Your task to perform on an android device: Clear all items from cart on costco.com. Add dell xps to the cart on costco.com, then select checkout. Image 0: 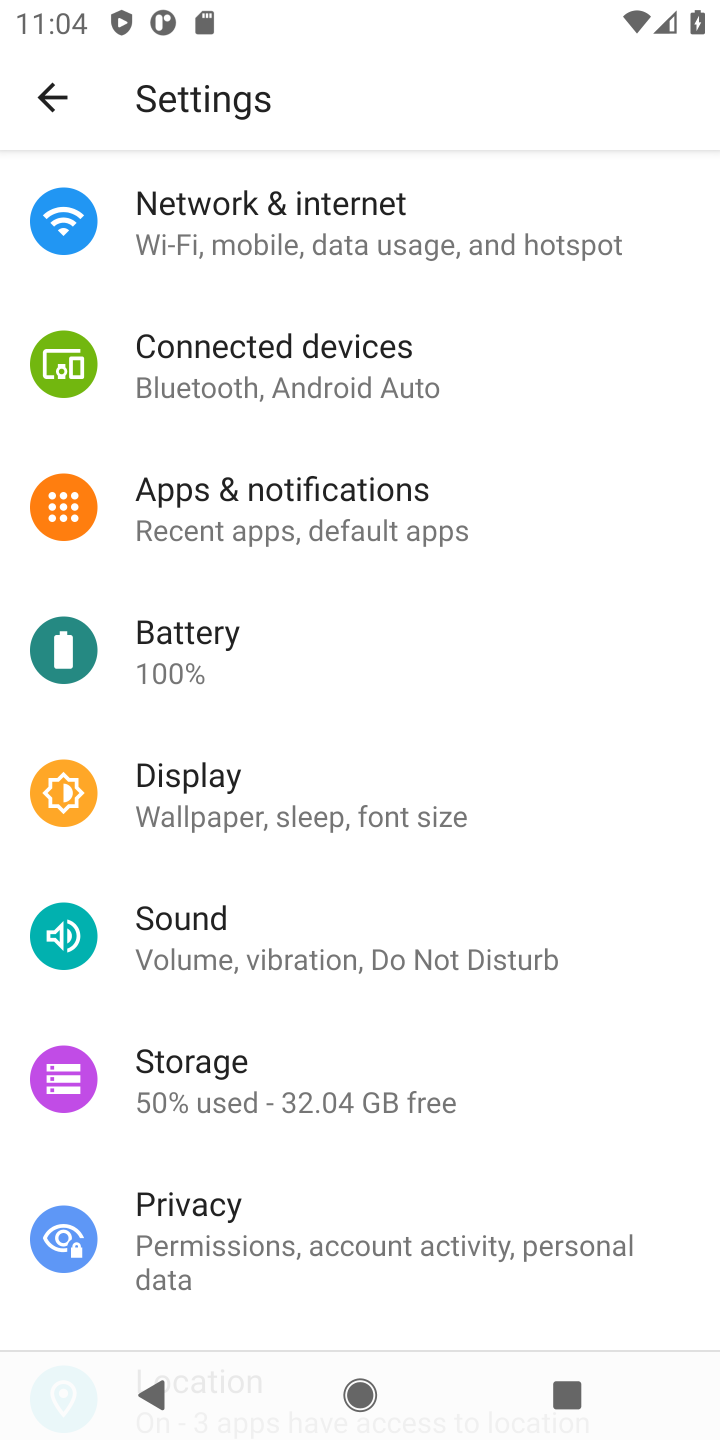
Step 0: press home button
Your task to perform on an android device: Clear all items from cart on costco.com. Add dell xps to the cart on costco.com, then select checkout. Image 1: 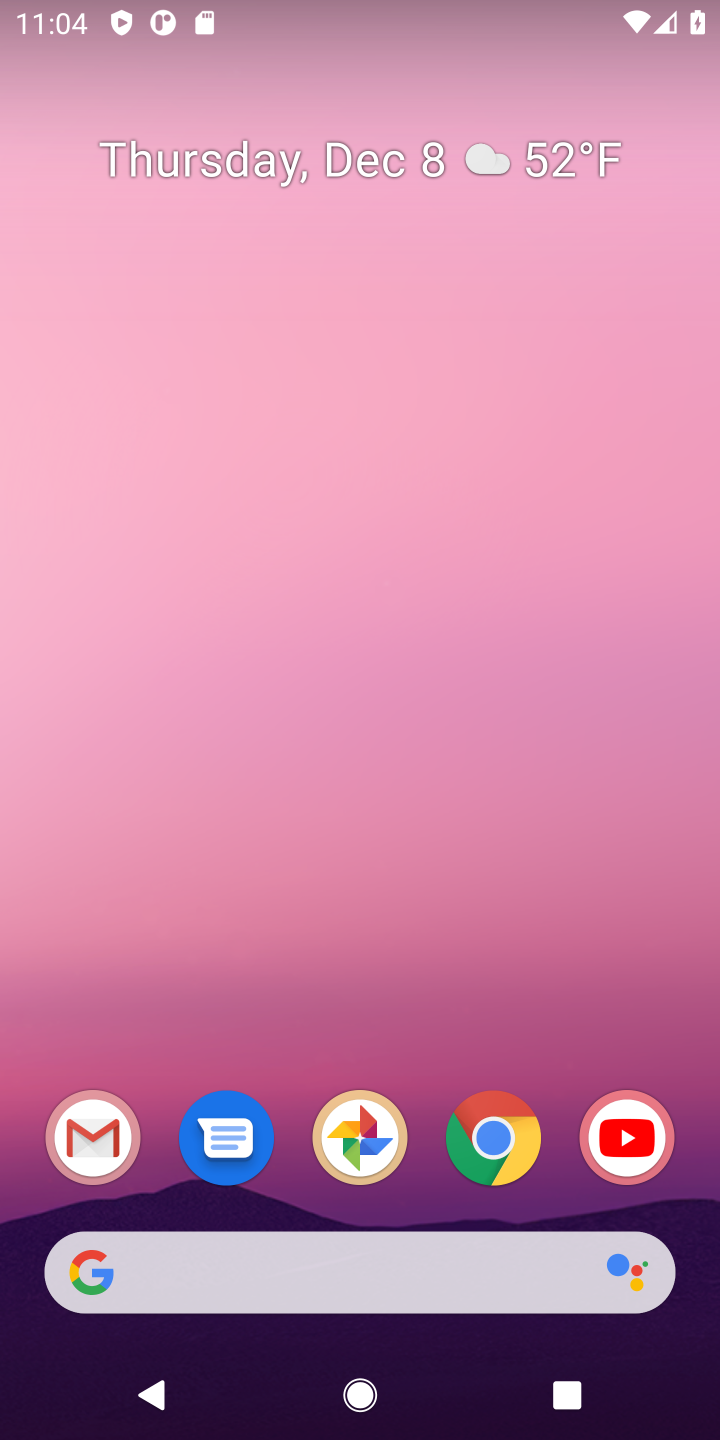
Step 1: click (505, 1127)
Your task to perform on an android device: Clear all items from cart on costco.com. Add dell xps to the cart on costco.com, then select checkout. Image 2: 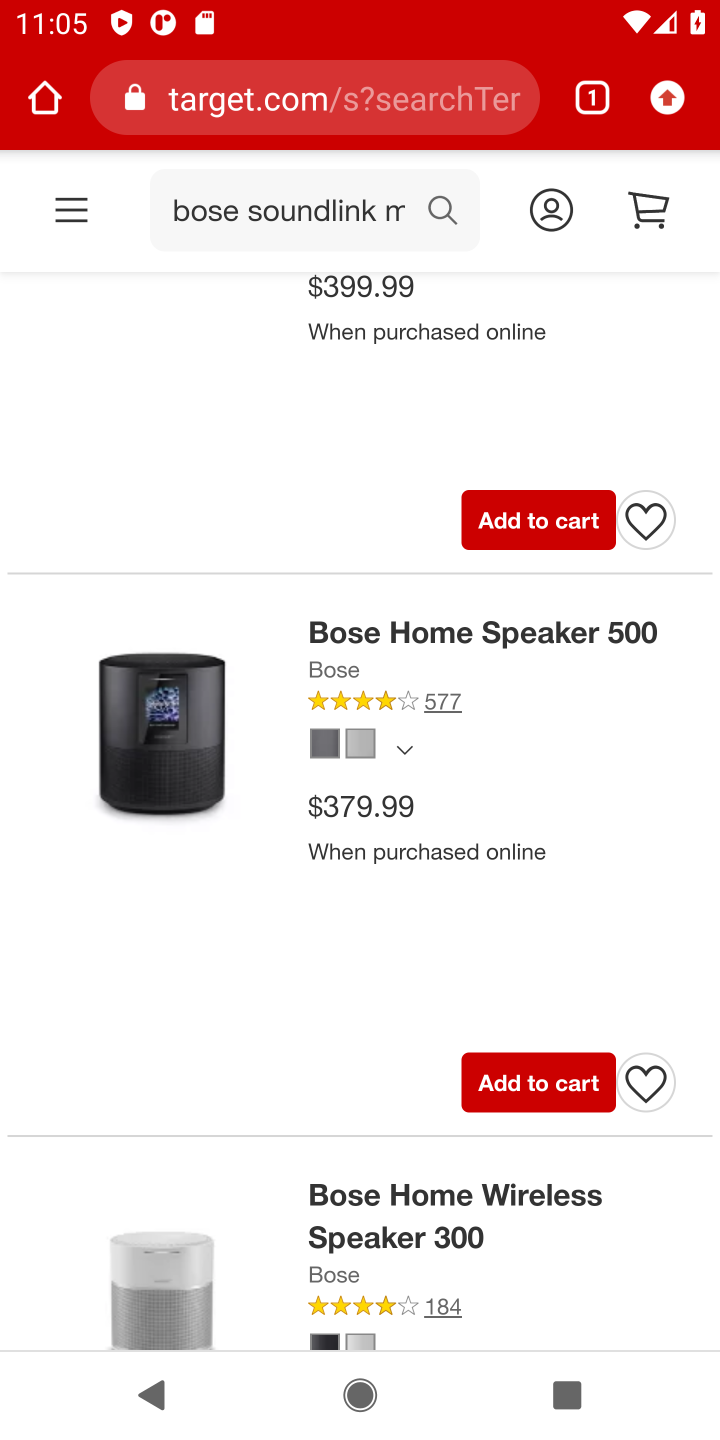
Step 2: click (346, 109)
Your task to perform on an android device: Clear all items from cart on costco.com. Add dell xps to the cart on costco.com, then select checkout. Image 3: 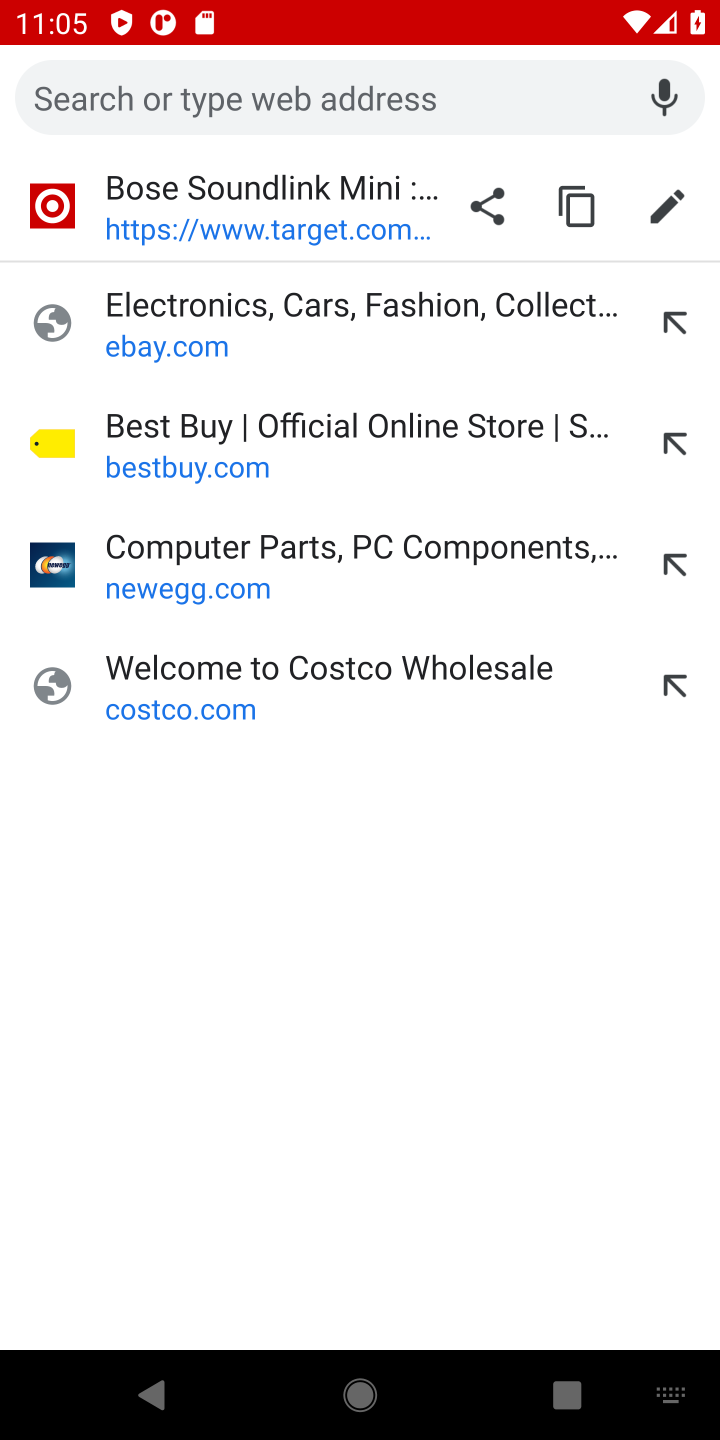
Step 3: press enter
Your task to perform on an android device: Clear all items from cart on costco.com. Add dell xps to the cart on costco.com, then select checkout. Image 4: 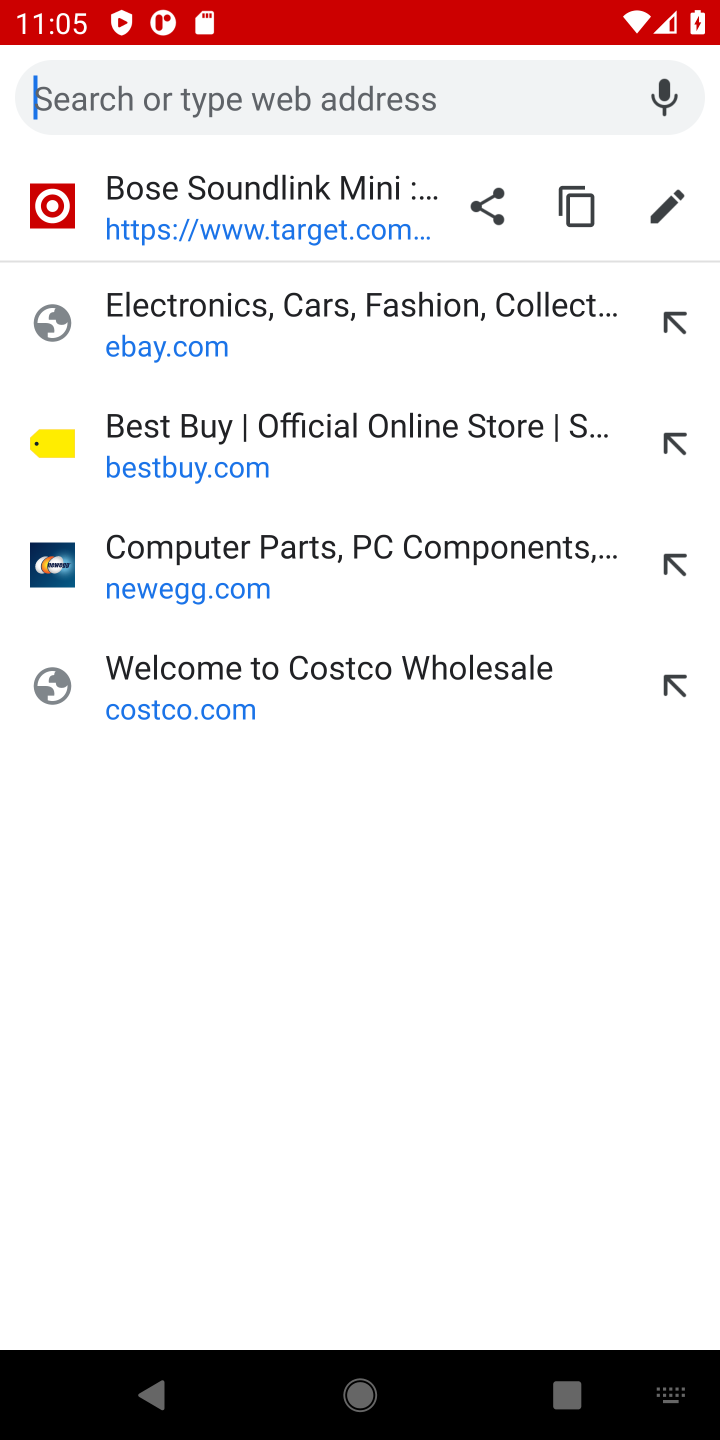
Step 4: type "costco.com"
Your task to perform on an android device: Clear all items from cart on costco.com. Add dell xps to the cart on costco.com, then select checkout. Image 5: 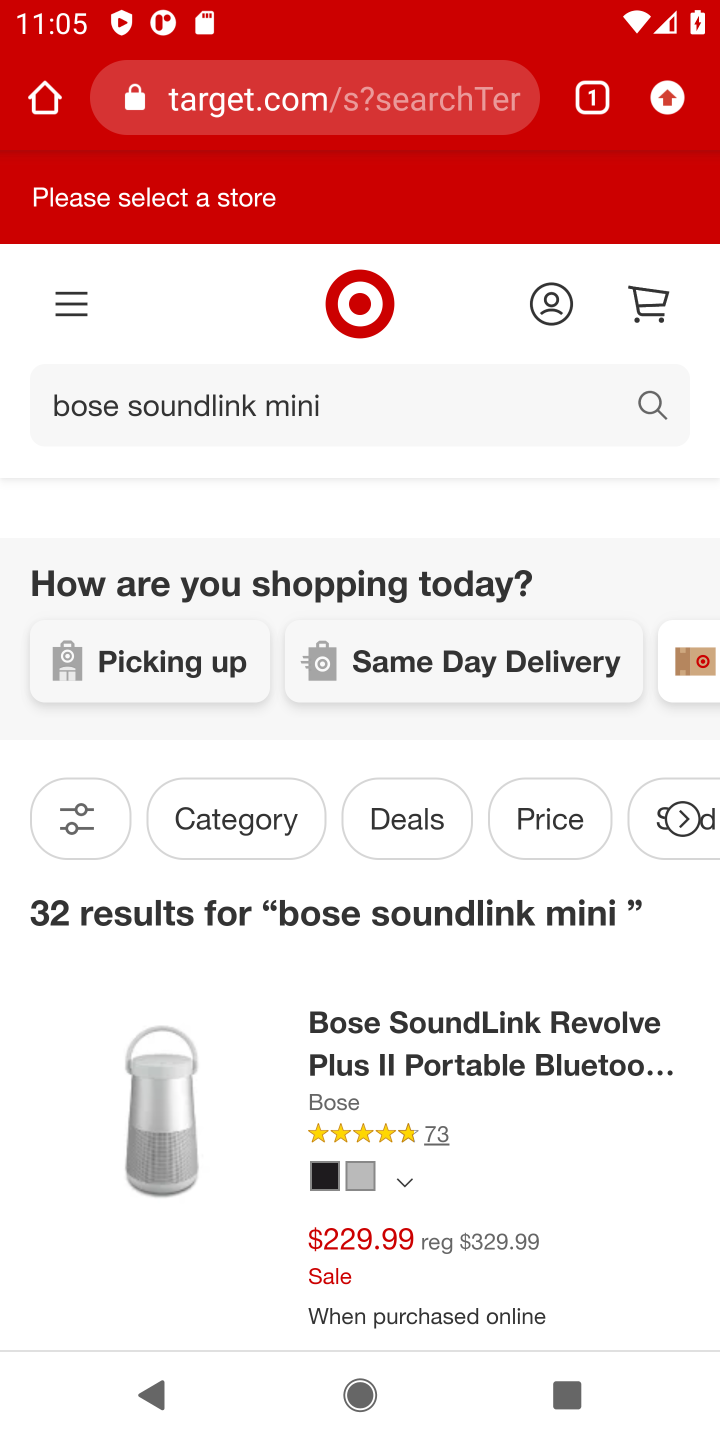
Step 5: click (276, 99)
Your task to perform on an android device: Clear all items from cart on costco.com. Add dell xps to the cart on costco.com, then select checkout. Image 6: 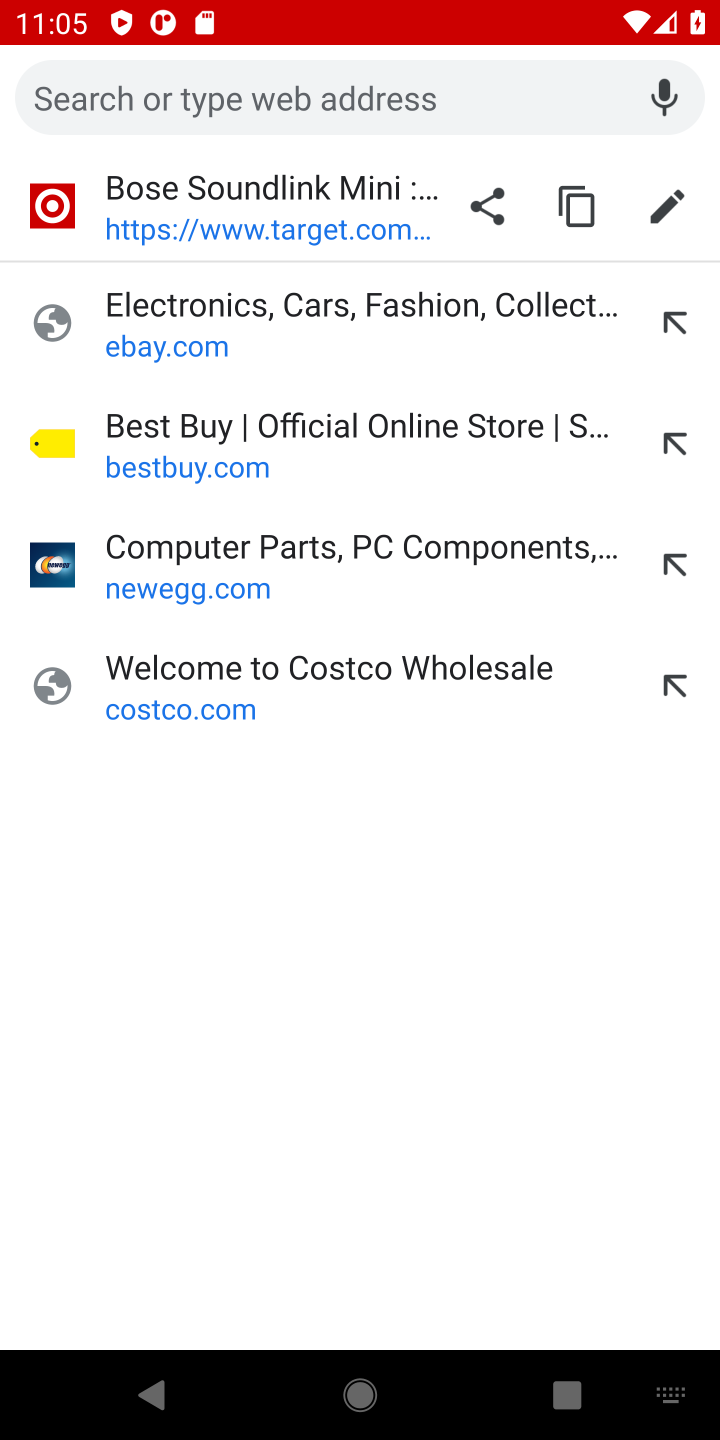
Step 6: type "costco.com"
Your task to perform on an android device: Clear all items from cart on costco.com. Add dell xps to the cart on costco.com, then select checkout. Image 7: 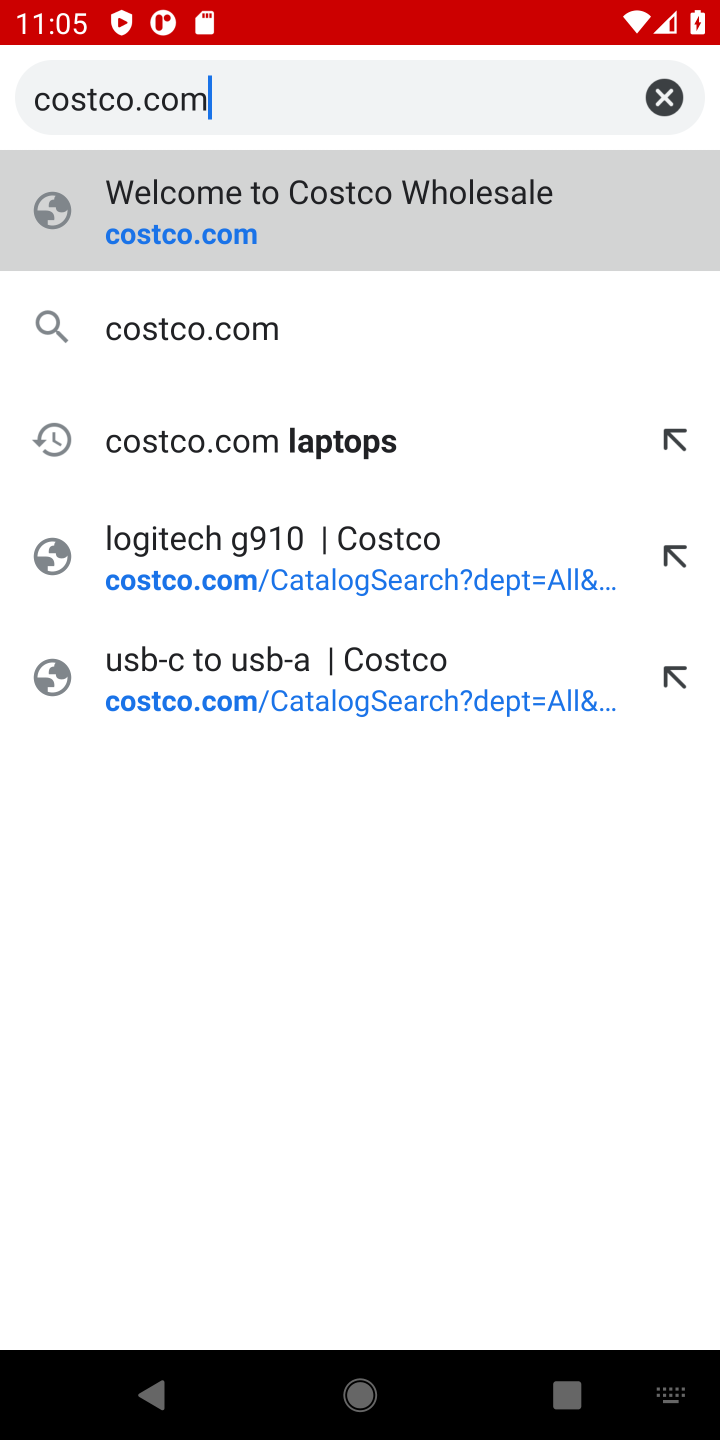
Step 7: press enter
Your task to perform on an android device: Clear all items from cart on costco.com. Add dell xps to the cart on costco.com, then select checkout. Image 8: 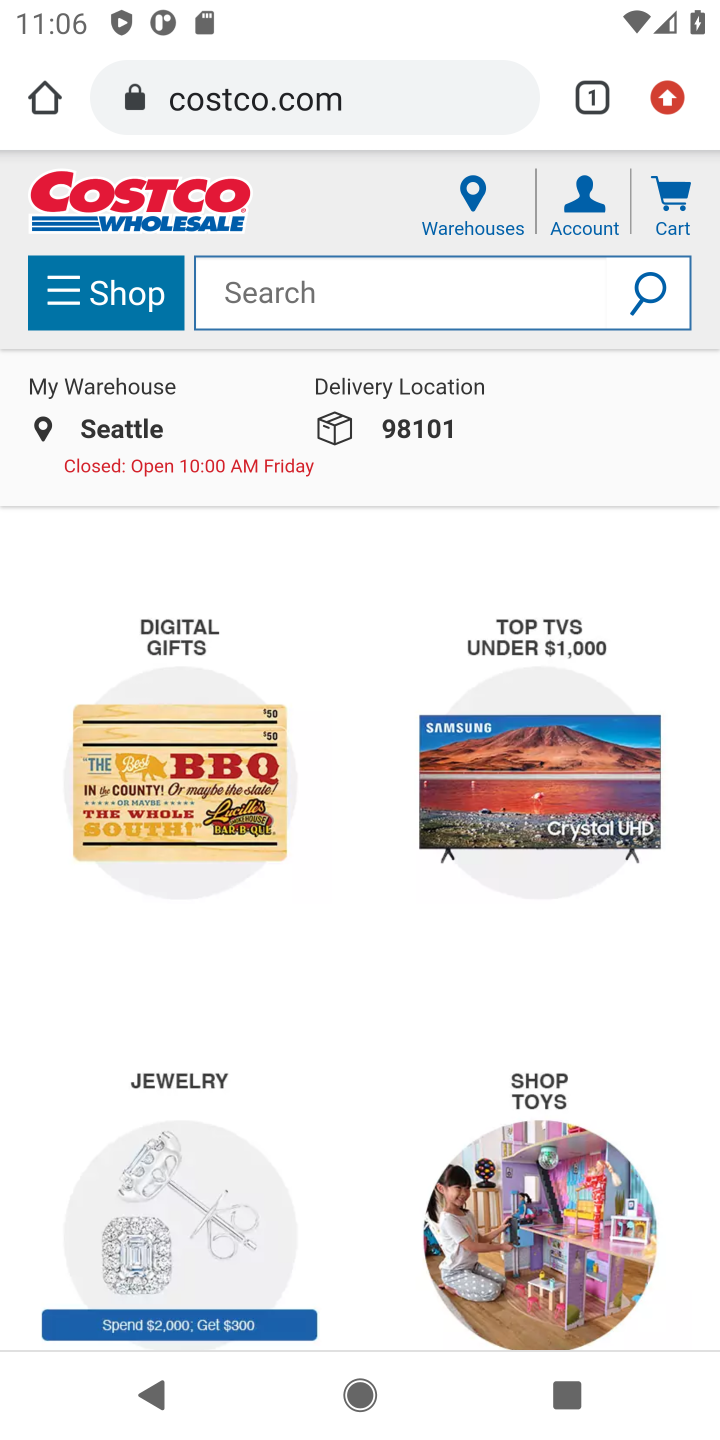
Step 8: click (672, 212)
Your task to perform on an android device: Clear all items from cart on costco.com. Add dell xps to the cart on costco.com, then select checkout. Image 9: 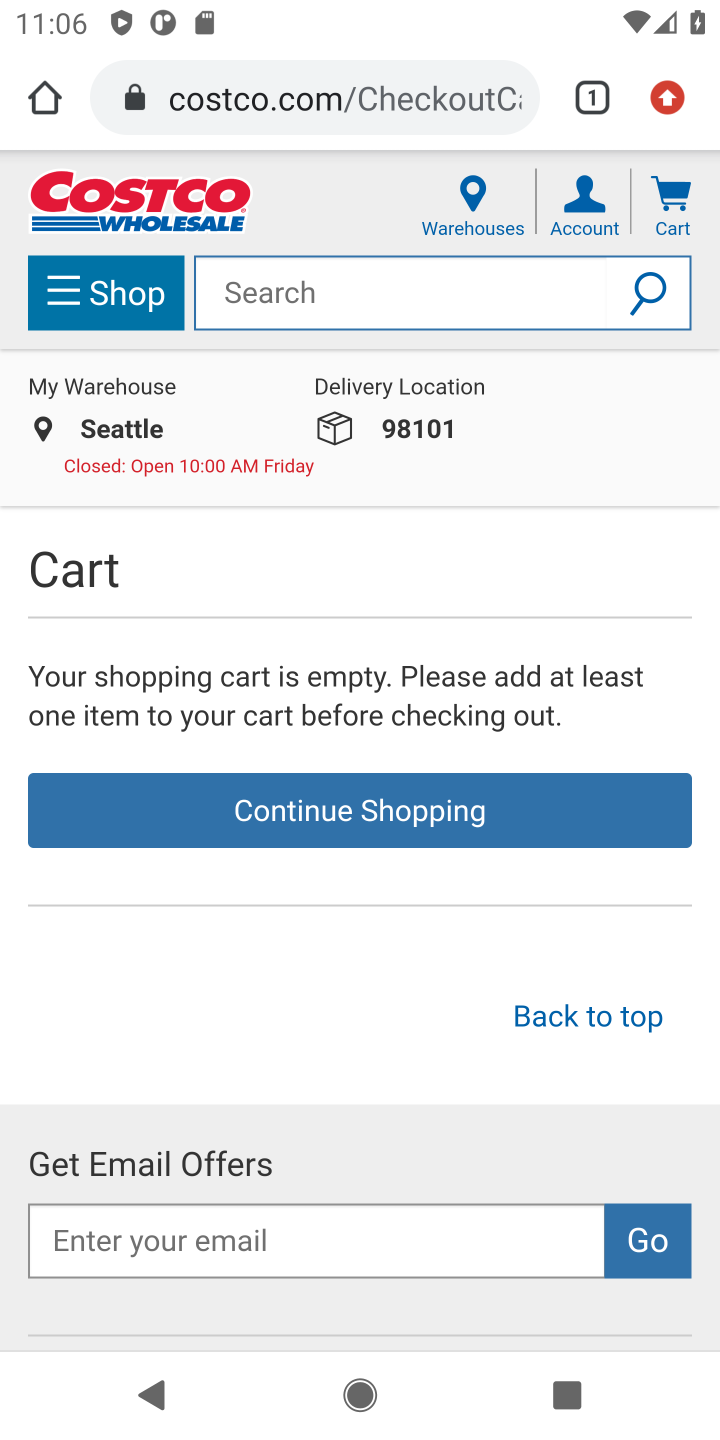
Step 9: click (454, 298)
Your task to perform on an android device: Clear all items from cart on costco.com. Add dell xps to the cart on costco.com, then select checkout. Image 10: 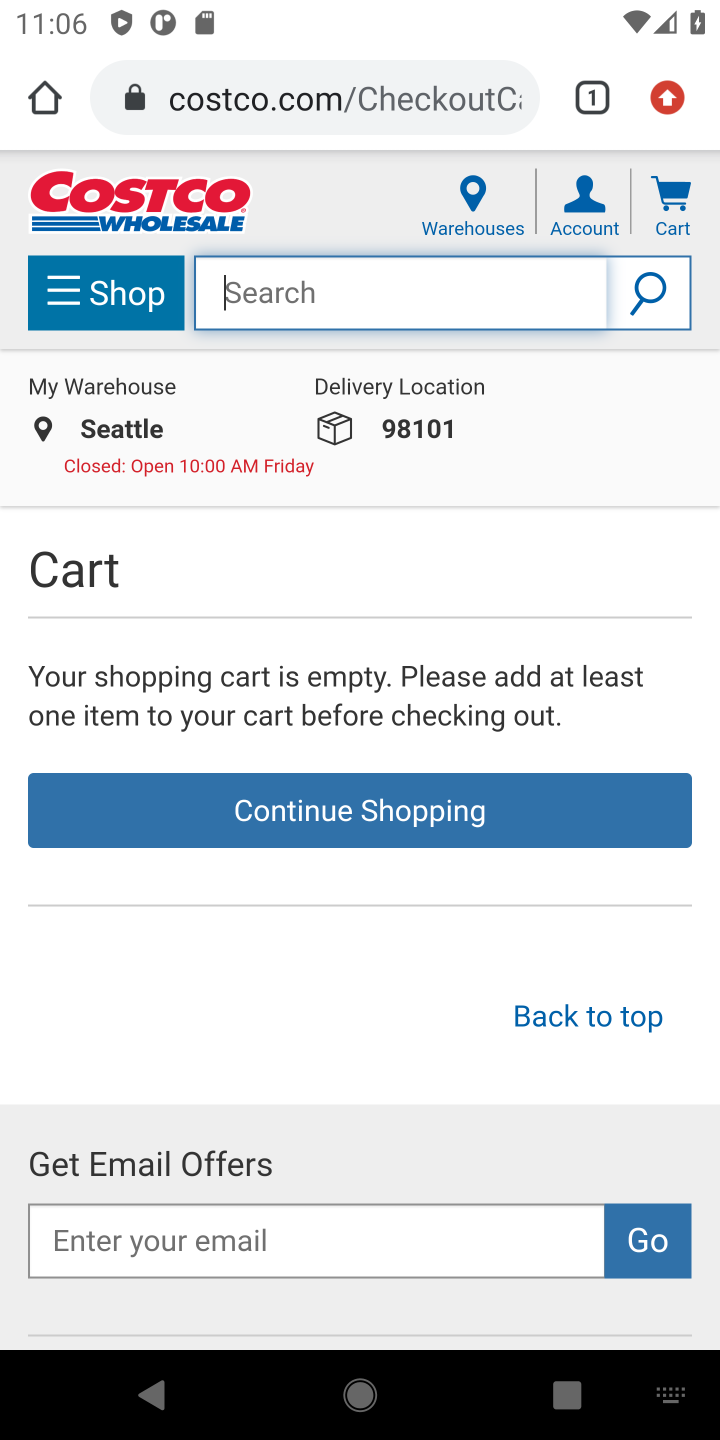
Step 10: type "dell xps"
Your task to perform on an android device: Clear all items from cart on costco.com. Add dell xps to the cart on costco.com, then select checkout. Image 11: 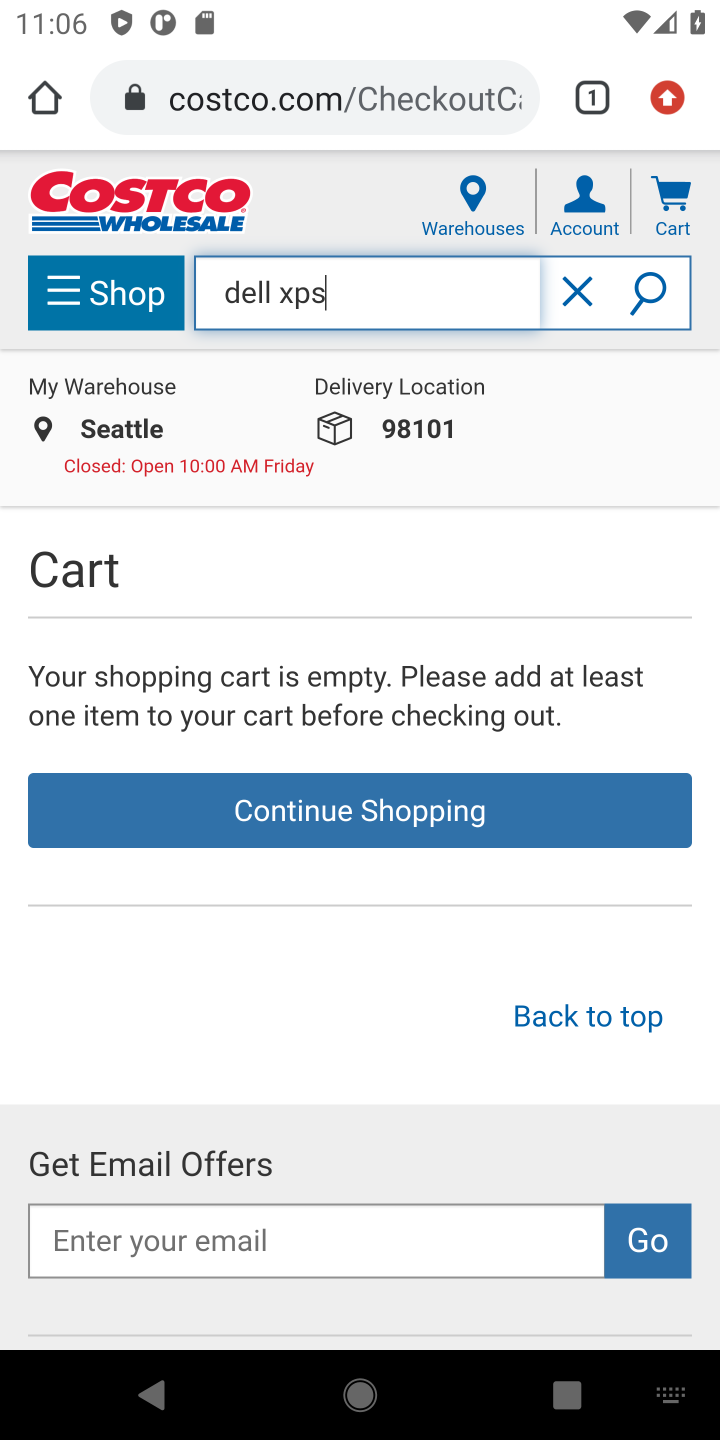
Step 11: press enter
Your task to perform on an android device: Clear all items from cart on costco.com. Add dell xps to the cart on costco.com, then select checkout. Image 12: 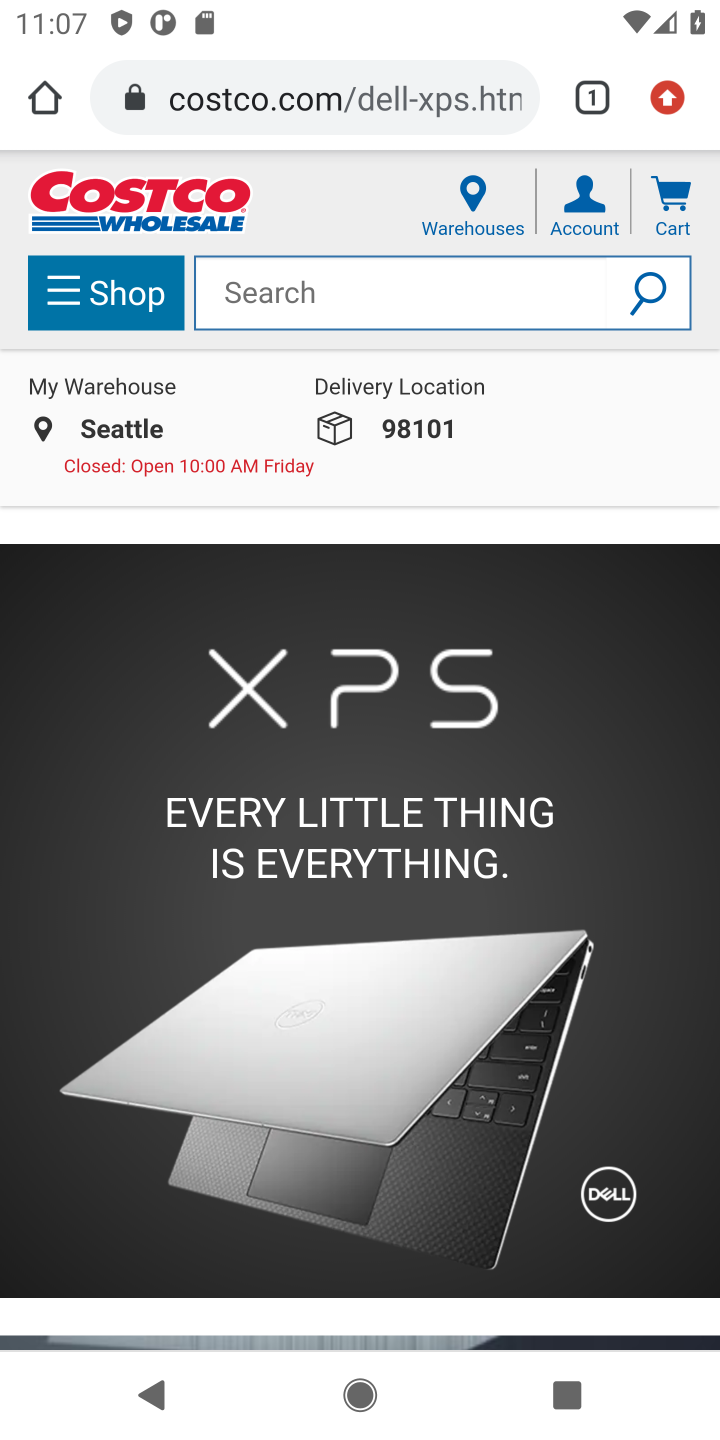
Step 12: click (413, 285)
Your task to perform on an android device: Clear all items from cart on costco.com. Add dell xps to the cart on costco.com, then select checkout. Image 13: 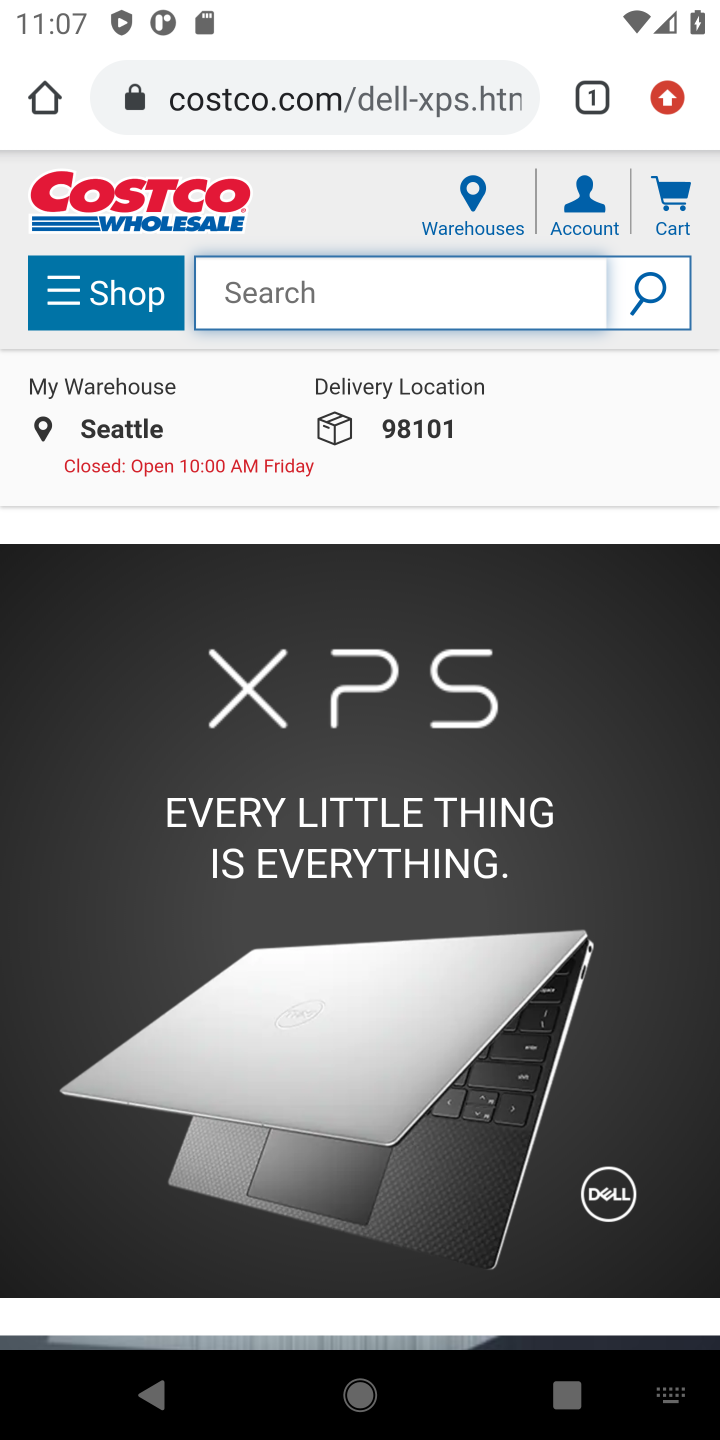
Step 13: type "dell xps"
Your task to perform on an android device: Clear all items from cart on costco.com. Add dell xps to the cart on costco.com, then select checkout. Image 14: 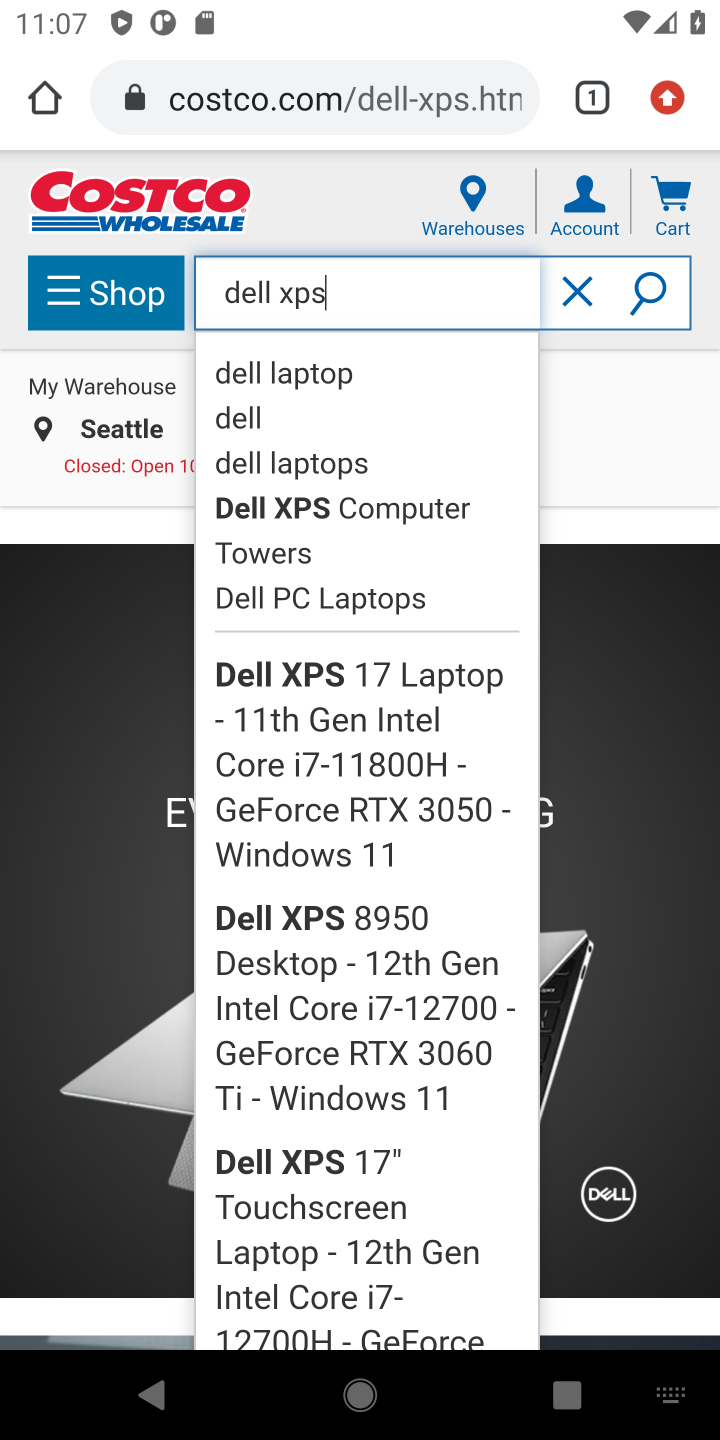
Step 14: press enter
Your task to perform on an android device: Clear all items from cart on costco.com. Add dell xps to the cart on costco.com, then select checkout. Image 15: 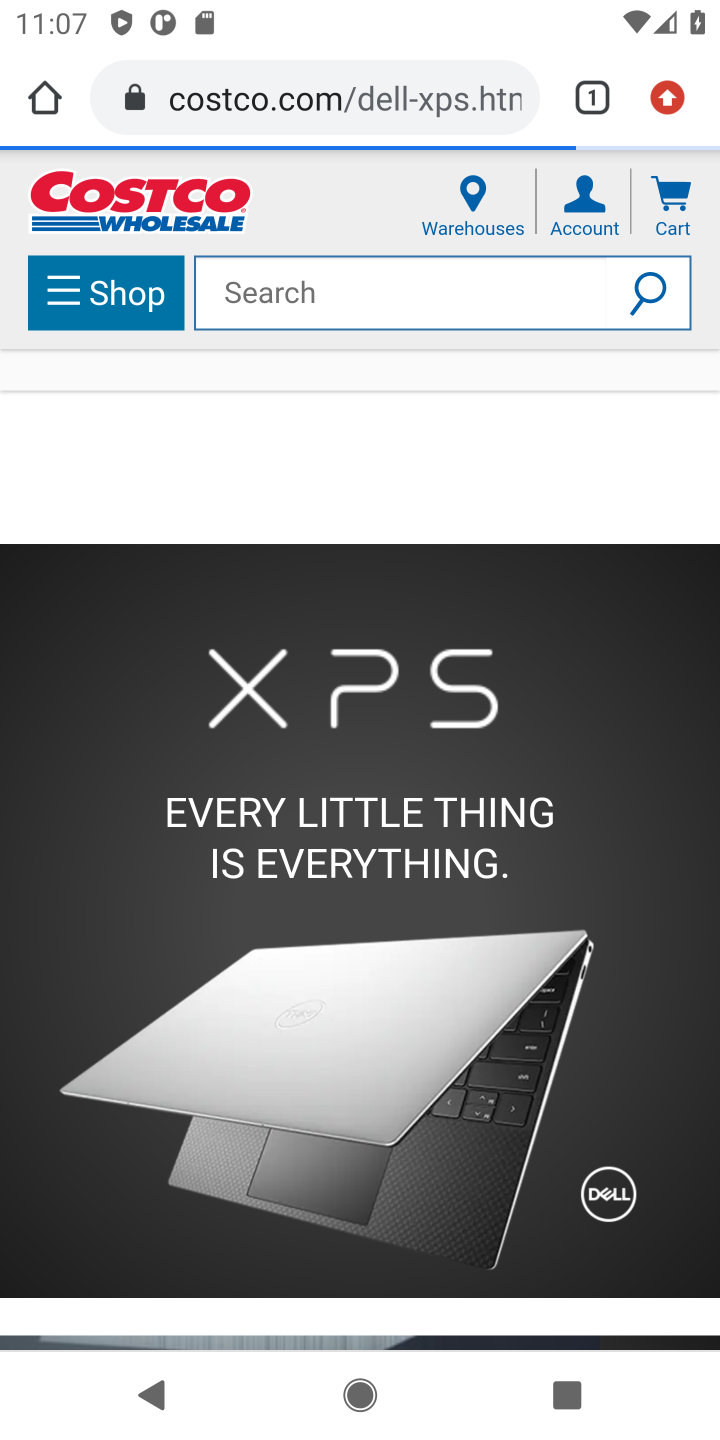
Step 15: drag from (572, 756) to (499, 0)
Your task to perform on an android device: Clear all items from cart on costco.com. Add dell xps to the cart on costco.com, then select checkout. Image 16: 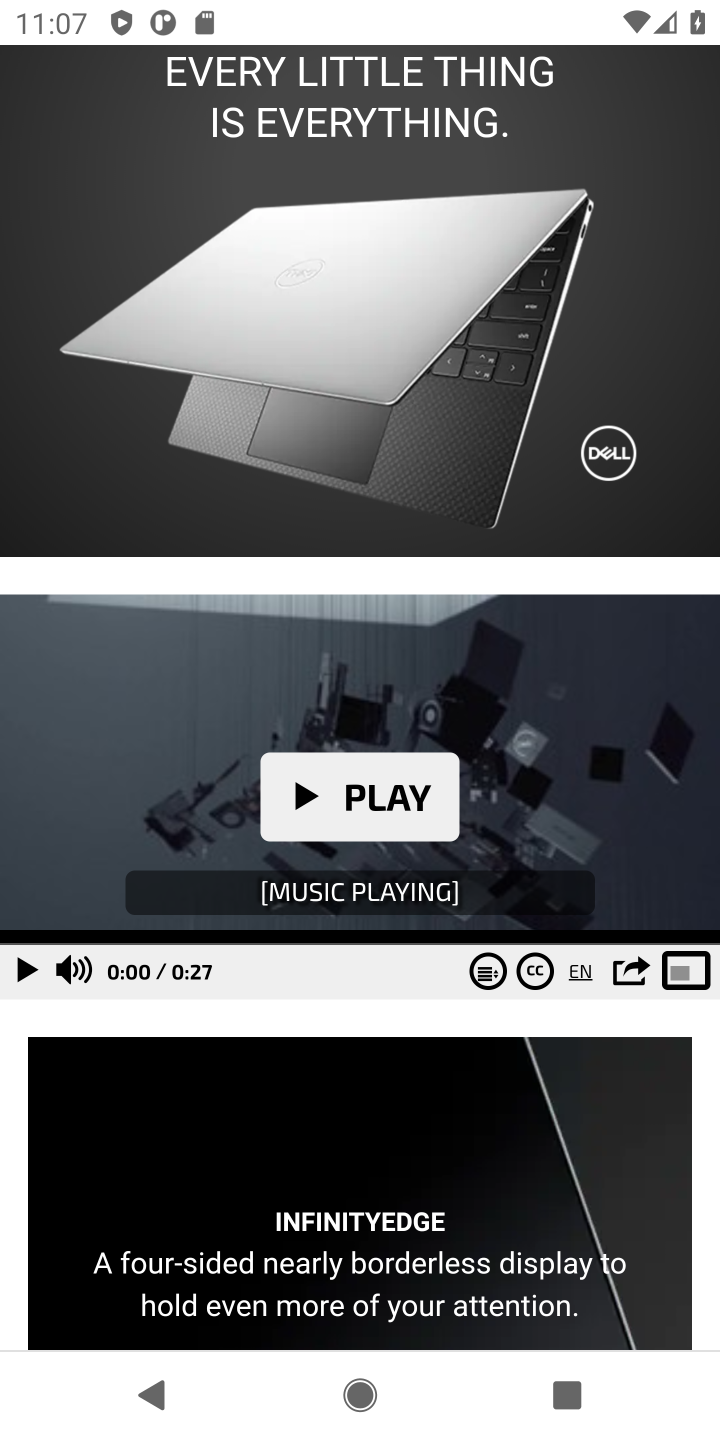
Step 16: drag from (548, 1163) to (496, 319)
Your task to perform on an android device: Clear all items from cart on costco.com. Add dell xps to the cart on costco.com, then select checkout. Image 17: 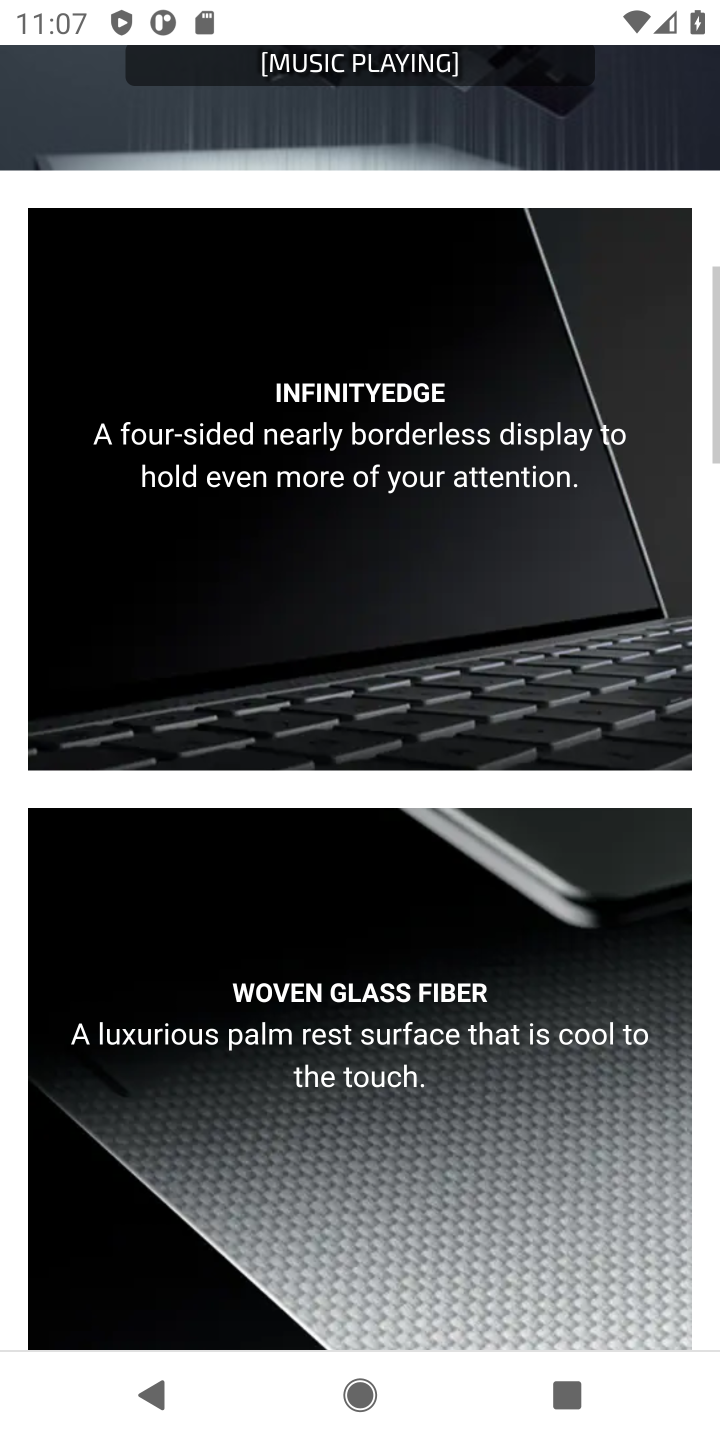
Step 17: drag from (575, 1132) to (514, 290)
Your task to perform on an android device: Clear all items from cart on costco.com. Add dell xps to the cart on costco.com, then select checkout. Image 18: 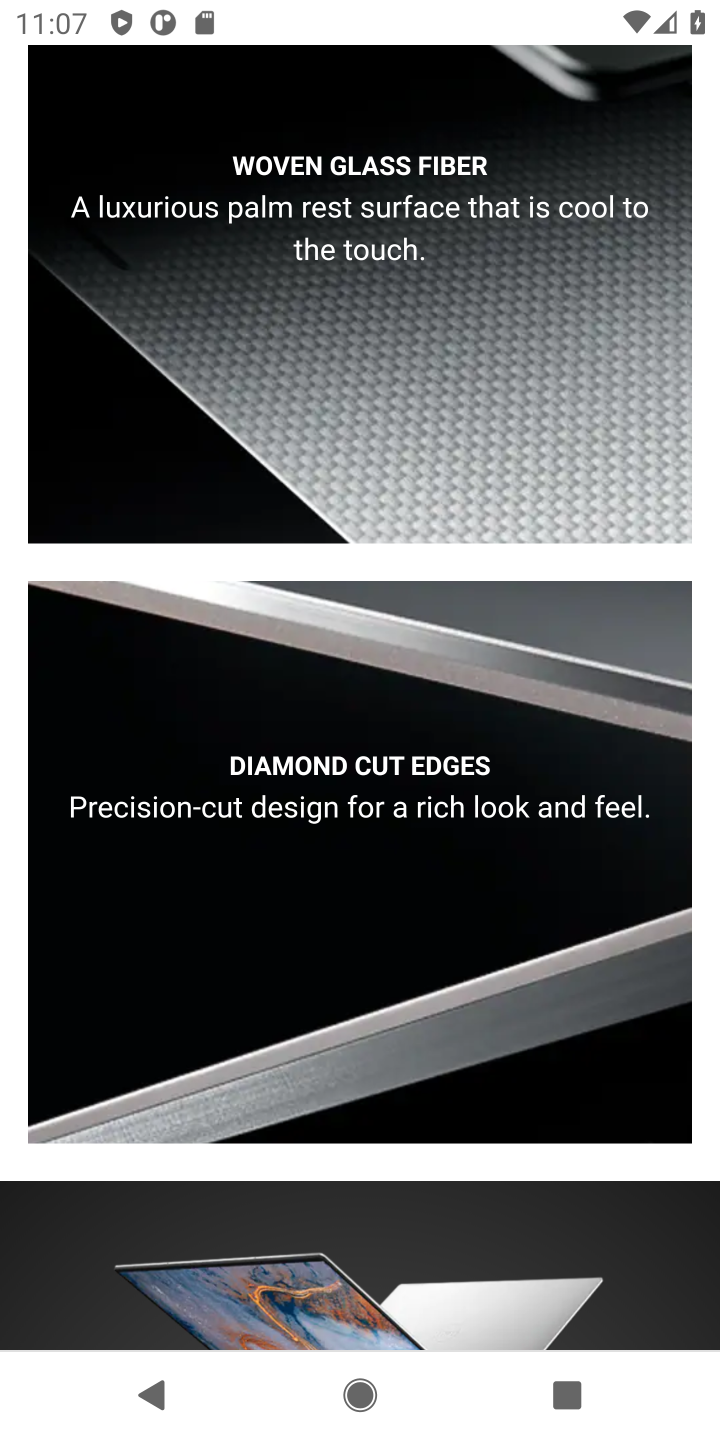
Step 18: drag from (590, 1140) to (425, 292)
Your task to perform on an android device: Clear all items from cart on costco.com. Add dell xps to the cart on costco.com, then select checkout. Image 19: 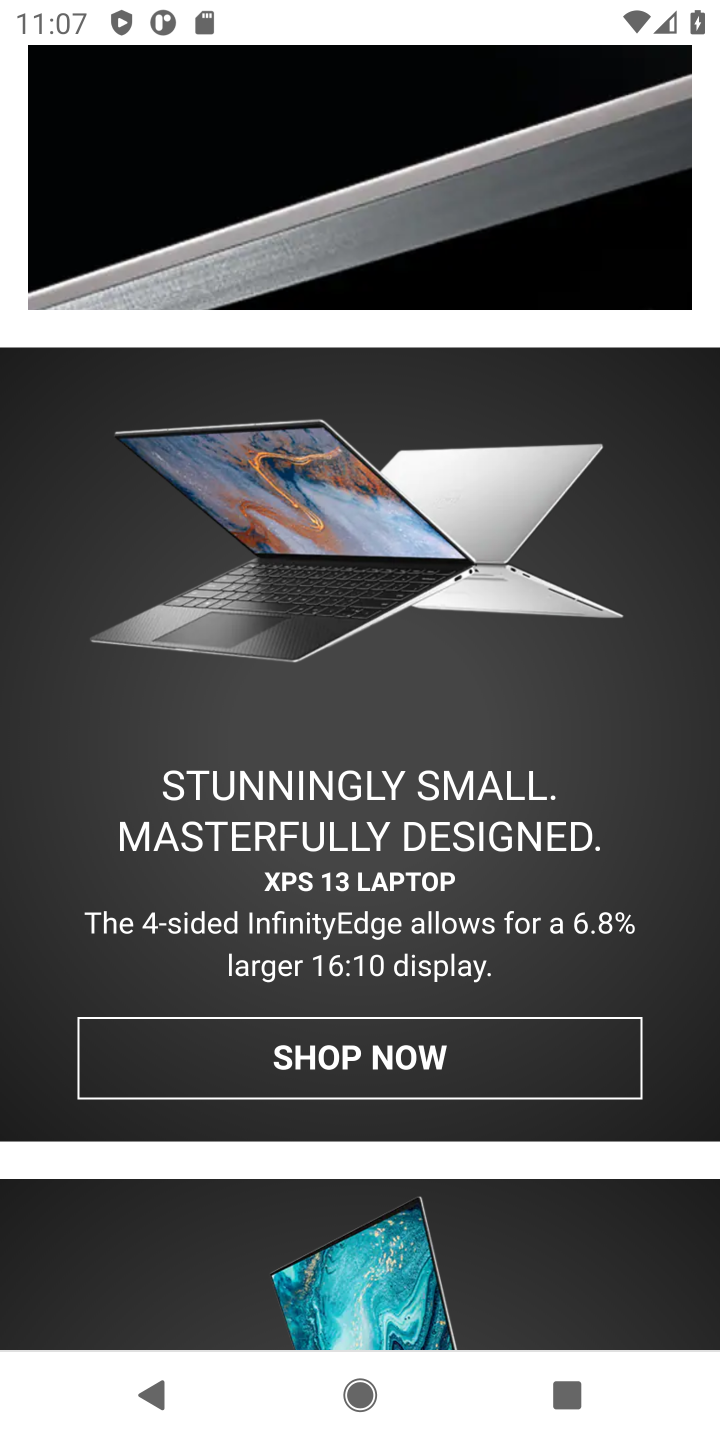
Step 19: click (388, 1053)
Your task to perform on an android device: Clear all items from cart on costco.com. Add dell xps to the cart on costco.com, then select checkout. Image 20: 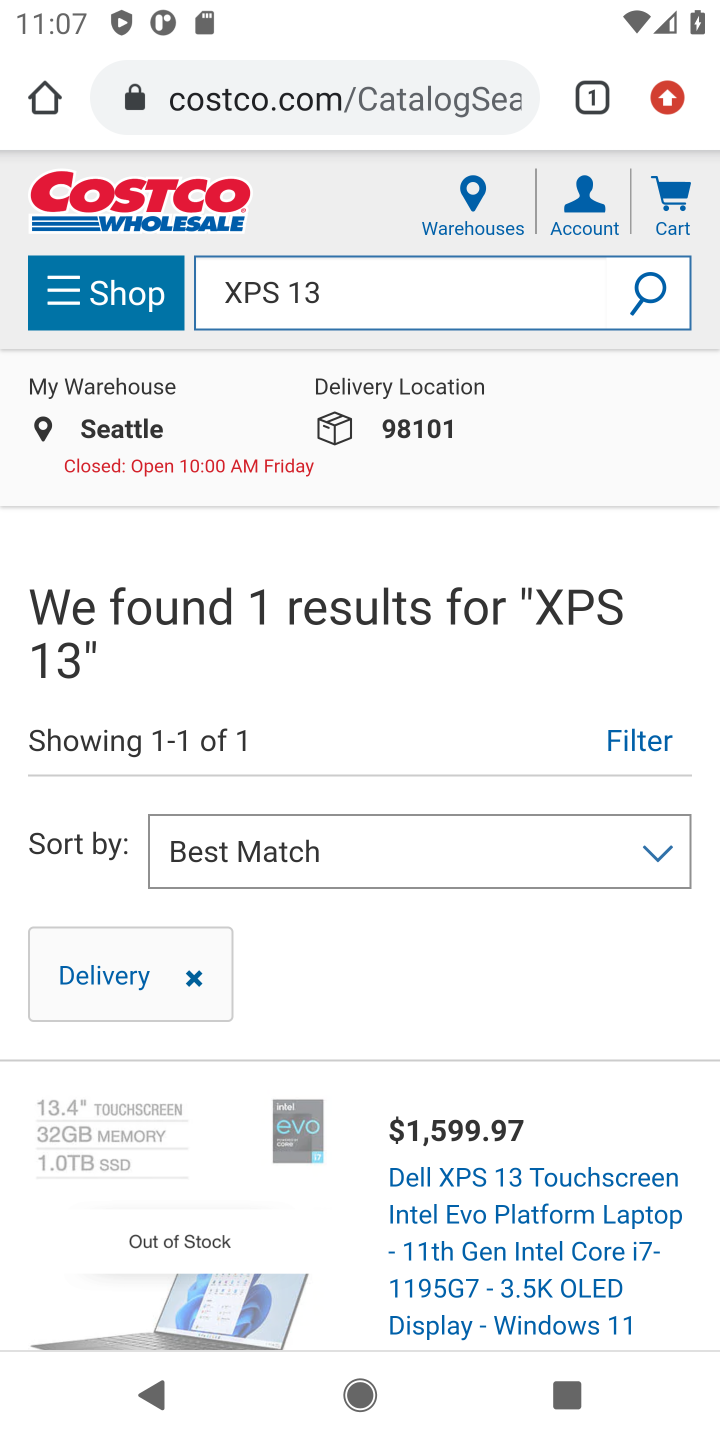
Step 20: drag from (427, 1153) to (522, 637)
Your task to perform on an android device: Clear all items from cart on costco.com. Add dell xps to the cart on costco.com, then select checkout. Image 21: 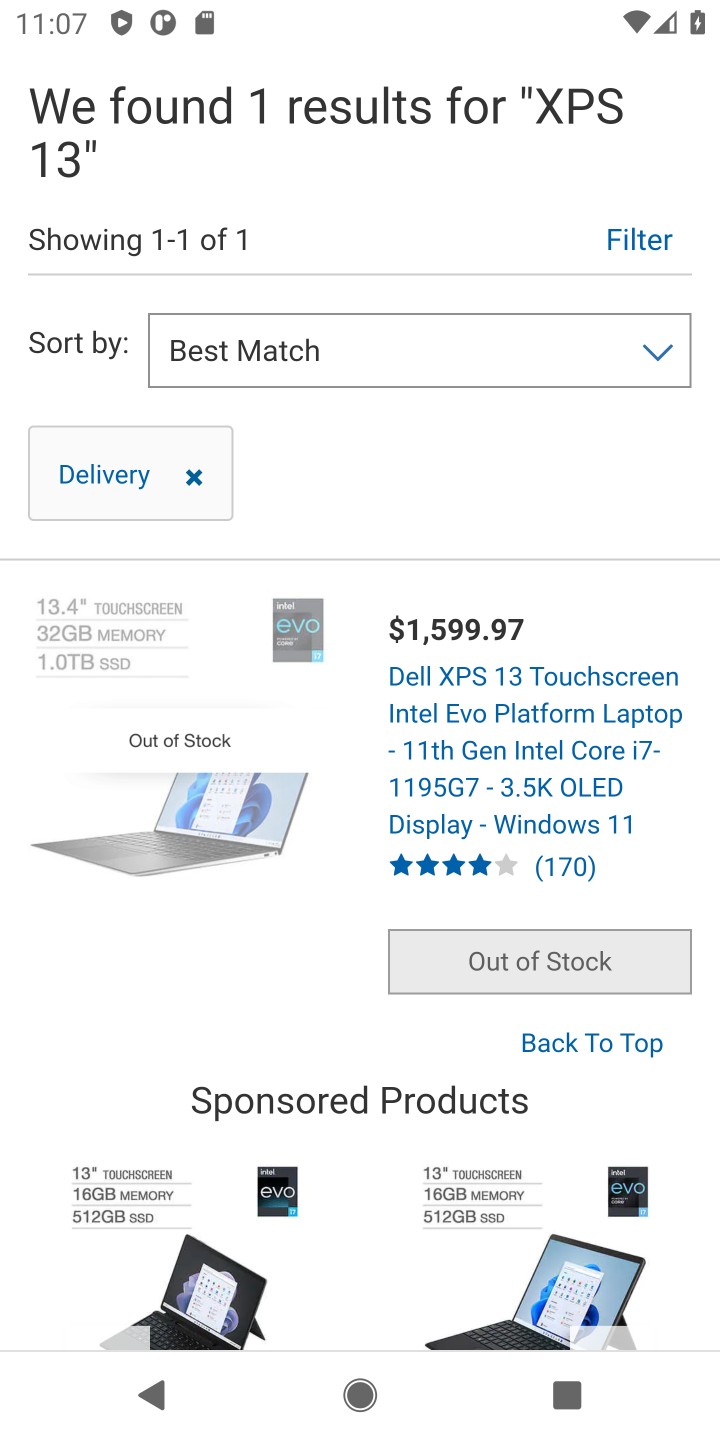
Step 21: click (274, 816)
Your task to perform on an android device: Clear all items from cart on costco.com. Add dell xps to the cart on costco.com, then select checkout. Image 22: 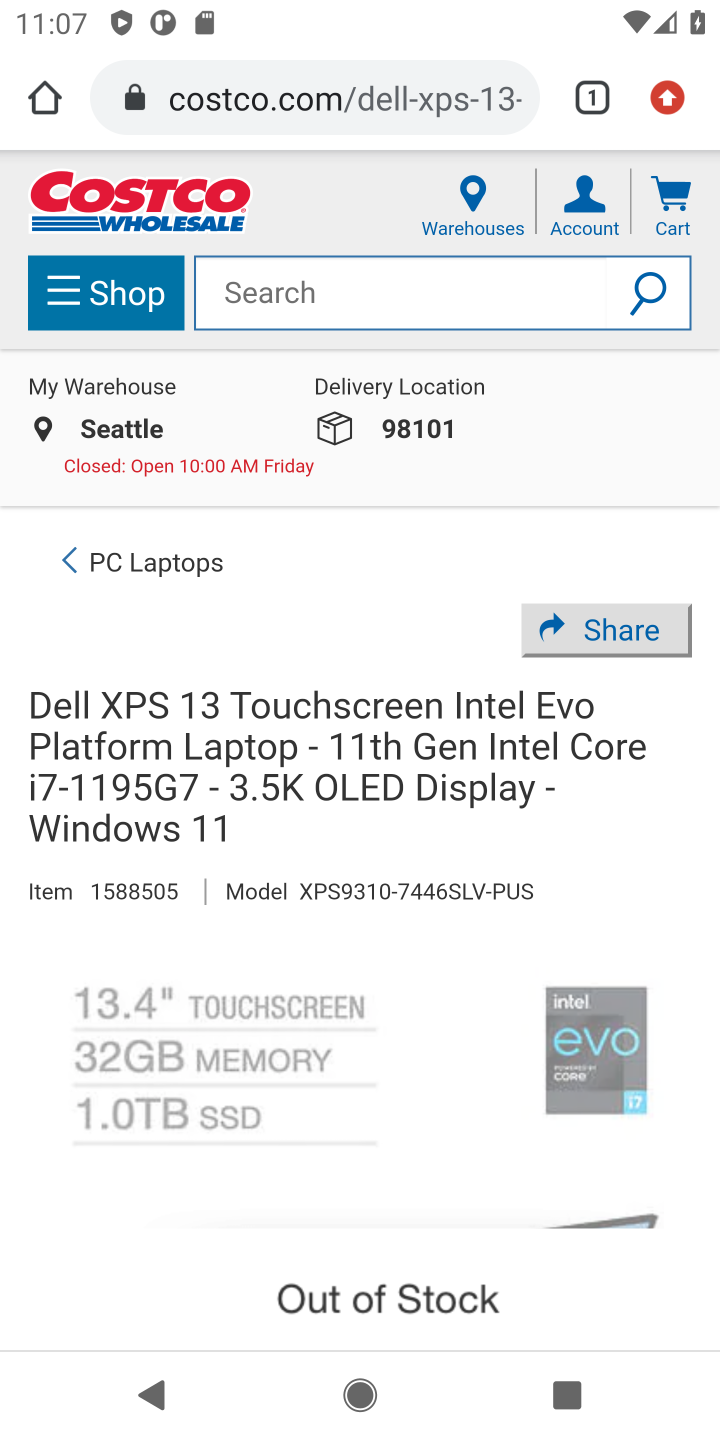
Step 22: task complete